Your task to perform on an android device: Search for sushi restaurants on Maps Image 0: 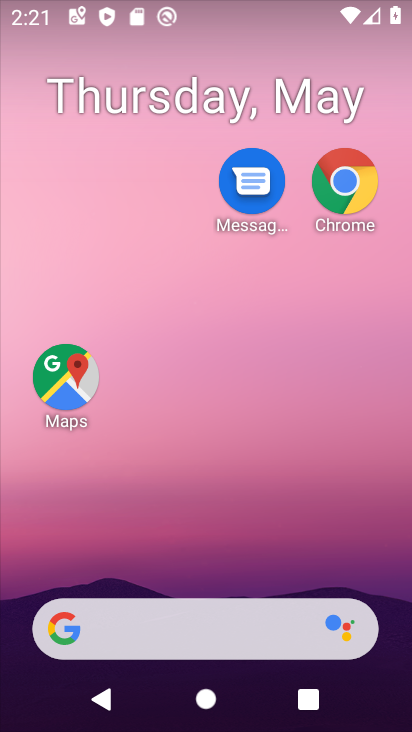
Step 0: drag from (329, 659) to (172, 6)
Your task to perform on an android device: Search for sushi restaurants on Maps Image 1: 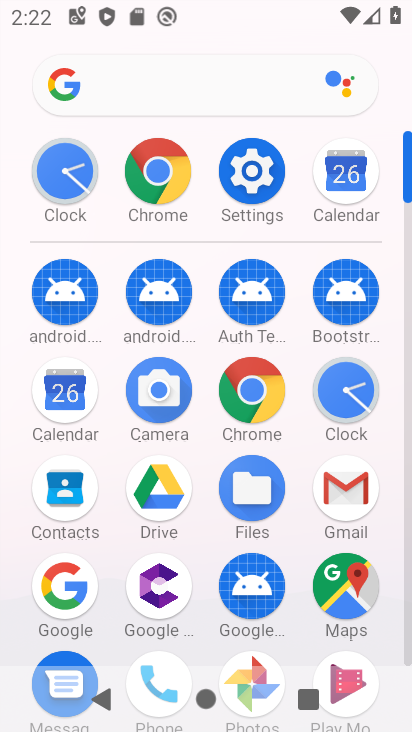
Step 1: click (366, 601)
Your task to perform on an android device: Search for sushi restaurants on Maps Image 2: 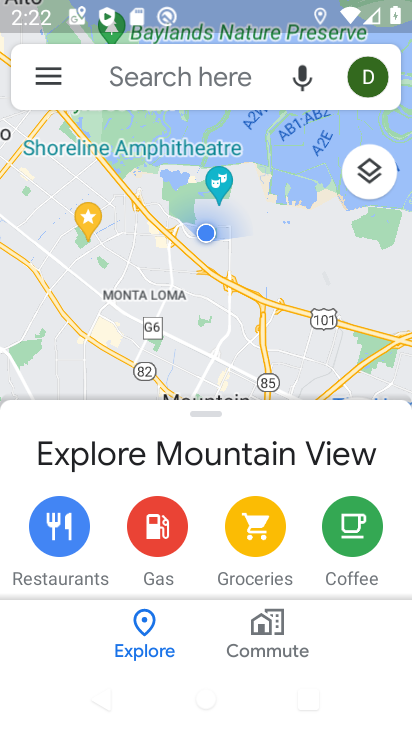
Step 2: click (29, 88)
Your task to perform on an android device: Search for sushi restaurants on Maps Image 3: 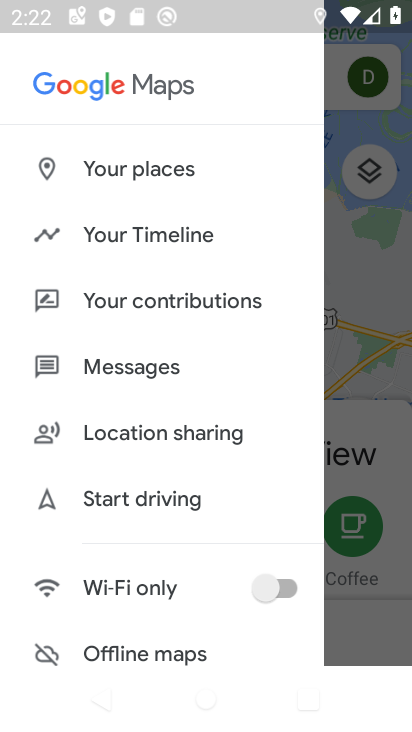
Step 3: click (377, 431)
Your task to perform on an android device: Search for sushi restaurants on Maps Image 4: 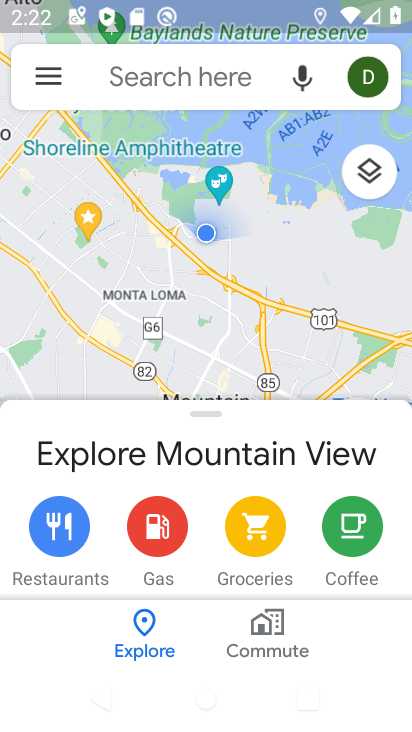
Step 4: click (215, 92)
Your task to perform on an android device: Search for sushi restaurants on Maps Image 5: 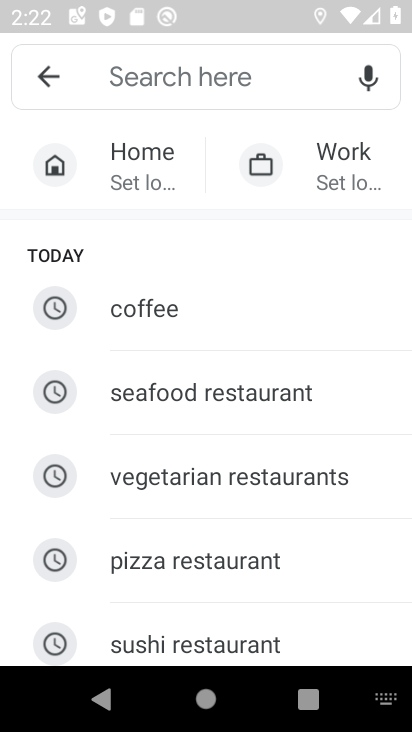
Step 5: drag from (293, 635) to (330, 299)
Your task to perform on an android device: Search for sushi restaurants on Maps Image 6: 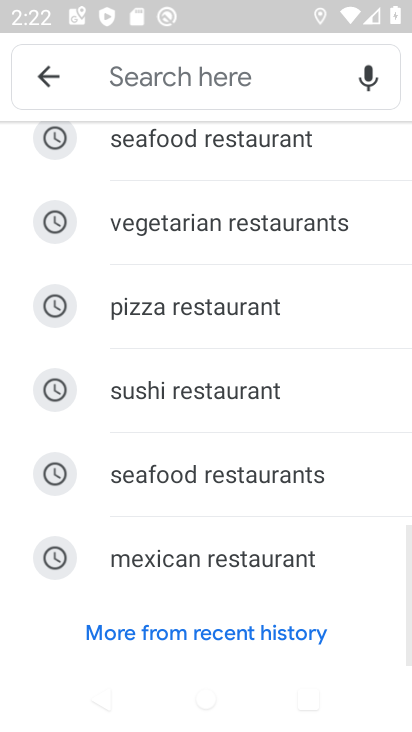
Step 6: click (272, 409)
Your task to perform on an android device: Search for sushi restaurants on Maps Image 7: 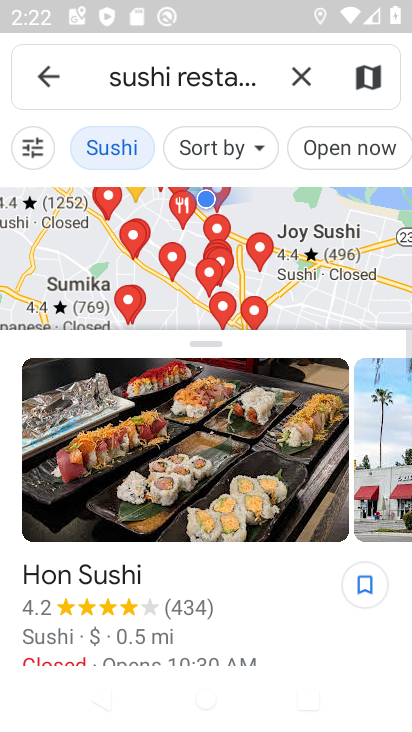
Step 7: task complete